Your task to perform on an android device: Open calendar and show me the fourth week of next month Image 0: 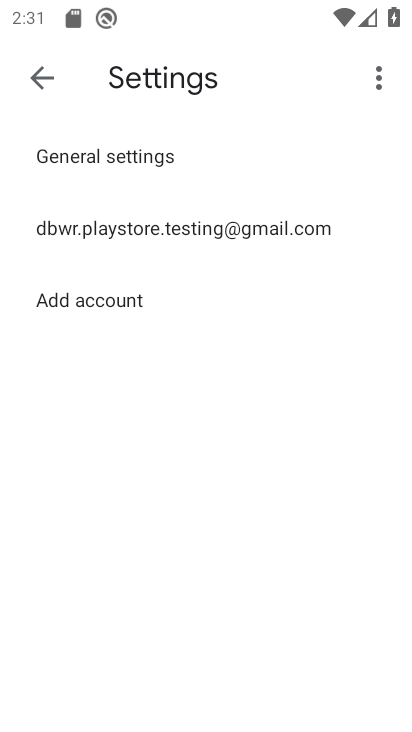
Step 0: press home button
Your task to perform on an android device: Open calendar and show me the fourth week of next month Image 1: 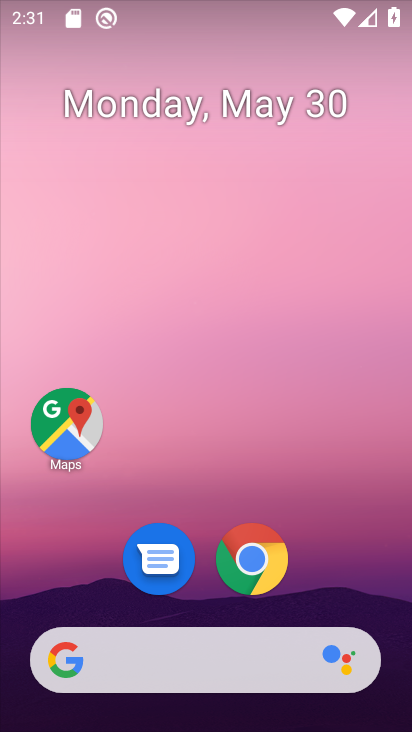
Step 1: drag from (356, 589) to (346, 125)
Your task to perform on an android device: Open calendar and show me the fourth week of next month Image 2: 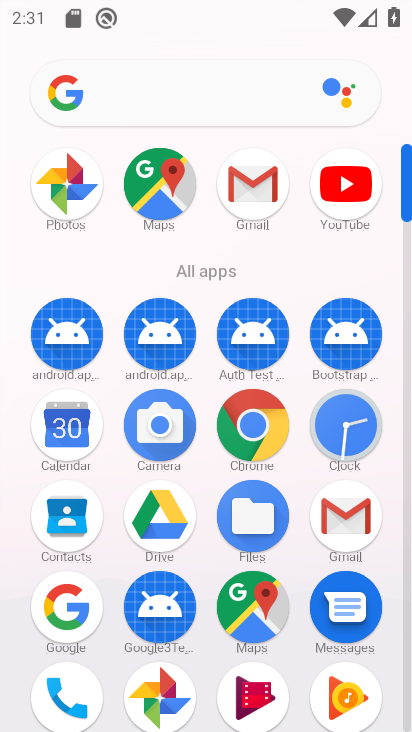
Step 2: click (69, 445)
Your task to perform on an android device: Open calendar and show me the fourth week of next month Image 3: 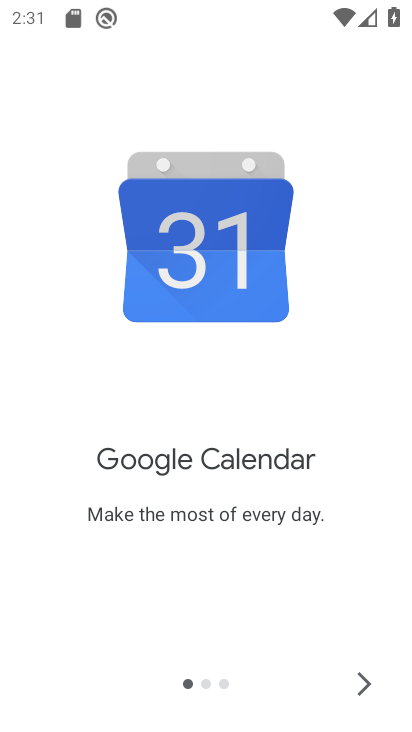
Step 3: click (370, 685)
Your task to perform on an android device: Open calendar and show me the fourth week of next month Image 4: 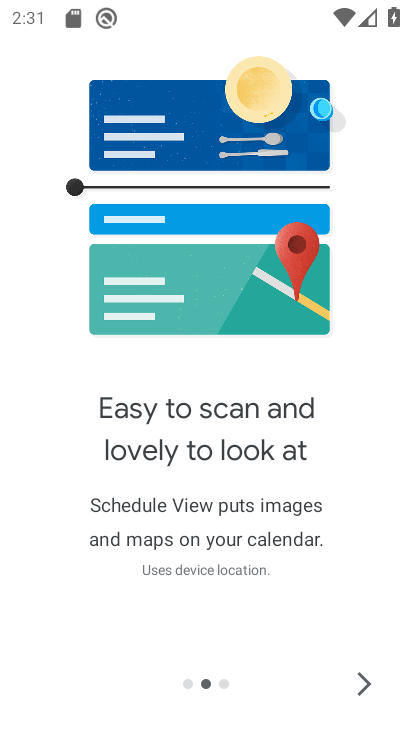
Step 4: click (370, 683)
Your task to perform on an android device: Open calendar and show me the fourth week of next month Image 5: 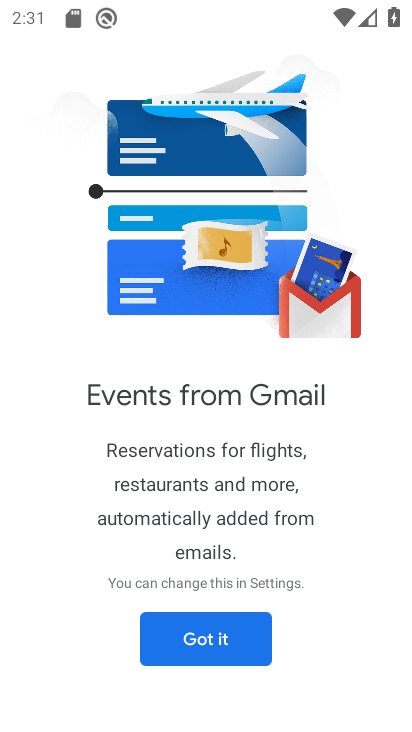
Step 5: click (228, 651)
Your task to perform on an android device: Open calendar and show me the fourth week of next month Image 6: 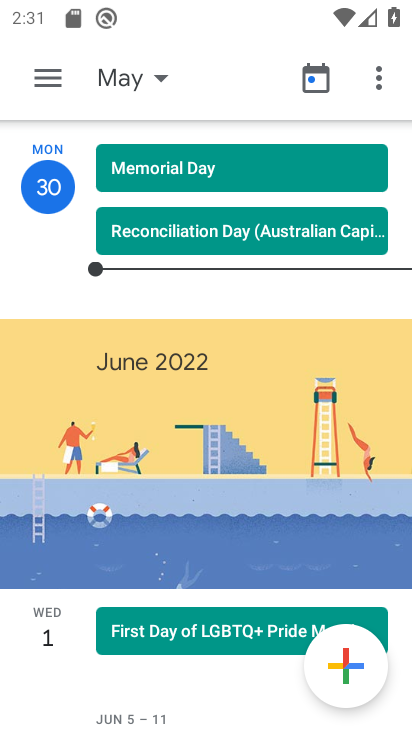
Step 6: click (327, 79)
Your task to perform on an android device: Open calendar and show me the fourth week of next month Image 7: 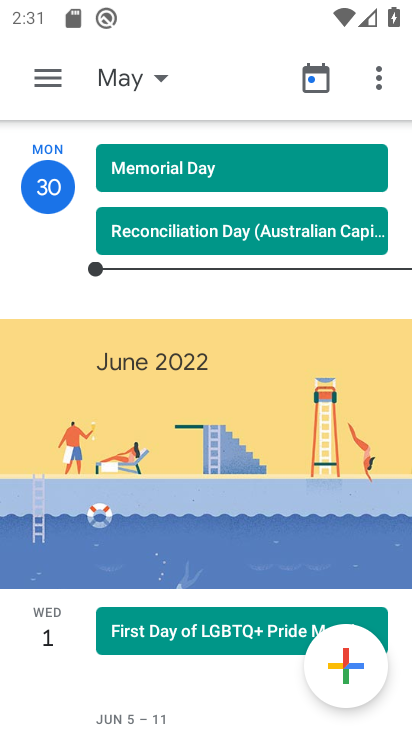
Step 7: click (131, 83)
Your task to perform on an android device: Open calendar and show me the fourth week of next month Image 8: 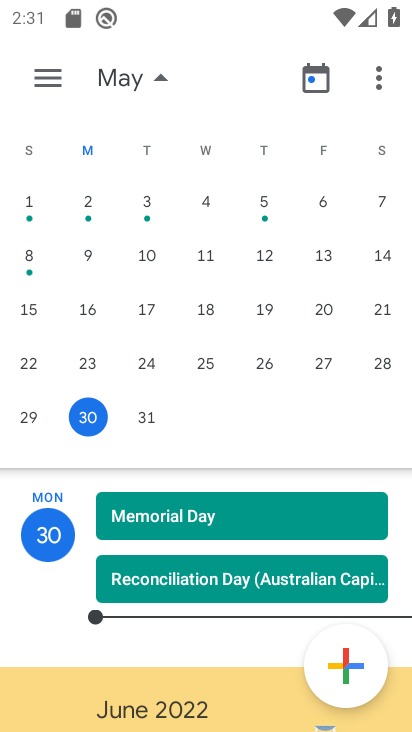
Step 8: drag from (358, 215) to (6, 233)
Your task to perform on an android device: Open calendar and show me the fourth week of next month Image 9: 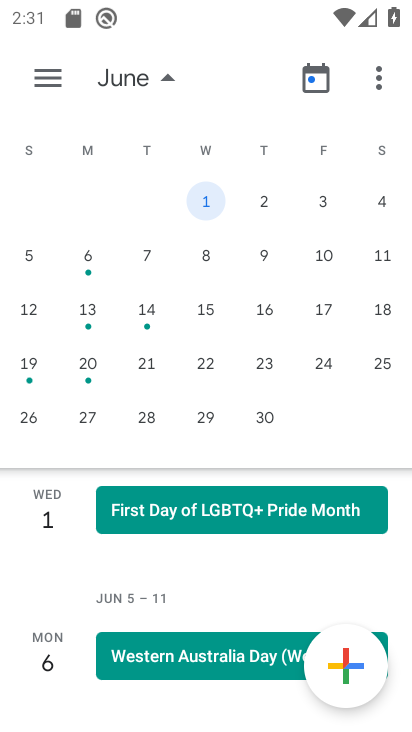
Step 9: click (25, 363)
Your task to perform on an android device: Open calendar and show me the fourth week of next month Image 10: 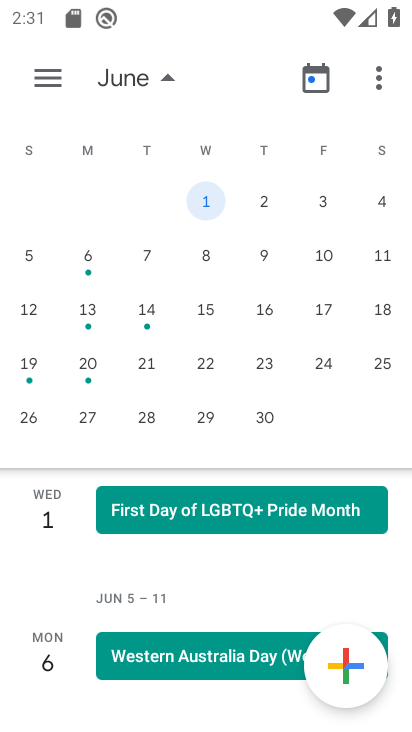
Step 10: click (32, 367)
Your task to perform on an android device: Open calendar and show me the fourth week of next month Image 11: 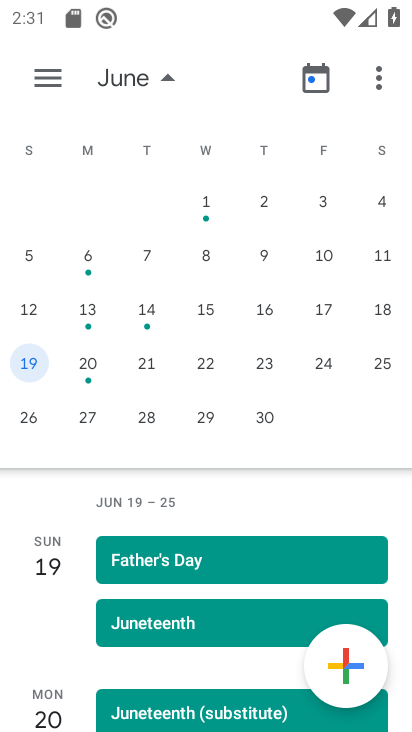
Step 11: task complete